Your task to perform on an android device: Do I have any events today? Image 0: 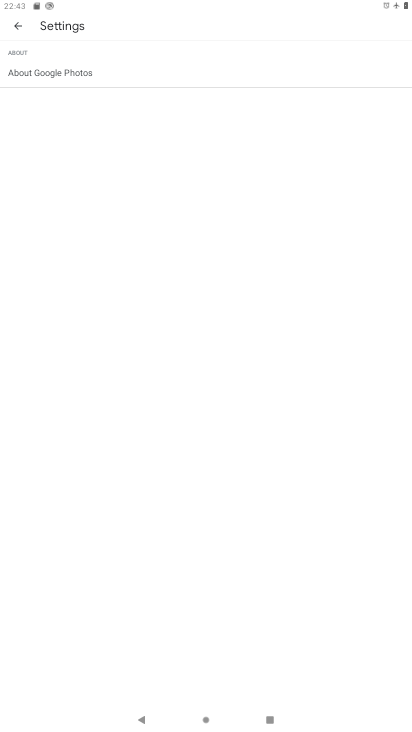
Step 0: press home button
Your task to perform on an android device: Do I have any events today? Image 1: 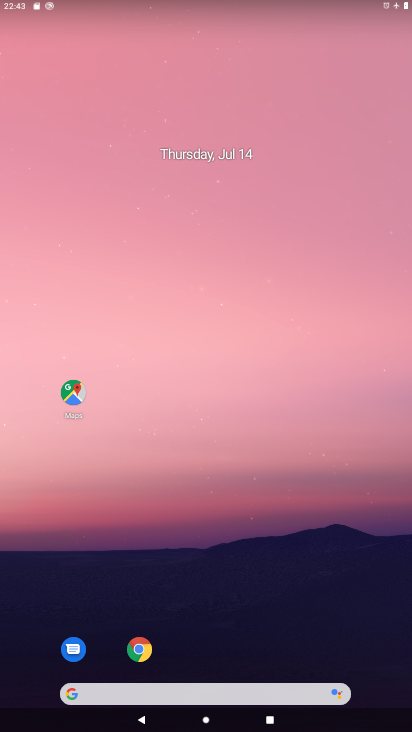
Step 1: drag from (190, 723) to (279, 63)
Your task to perform on an android device: Do I have any events today? Image 2: 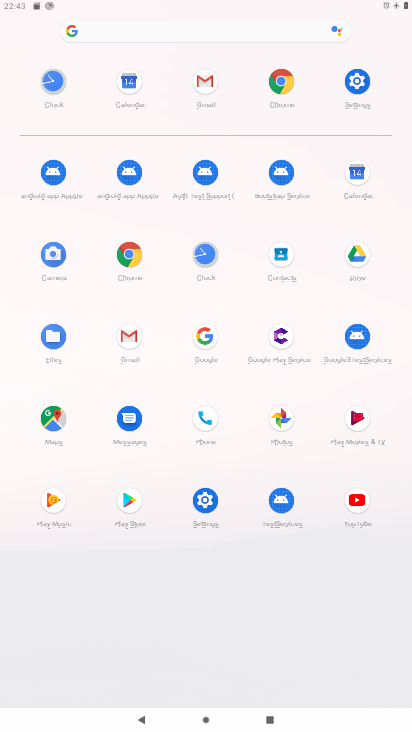
Step 2: click (359, 173)
Your task to perform on an android device: Do I have any events today? Image 3: 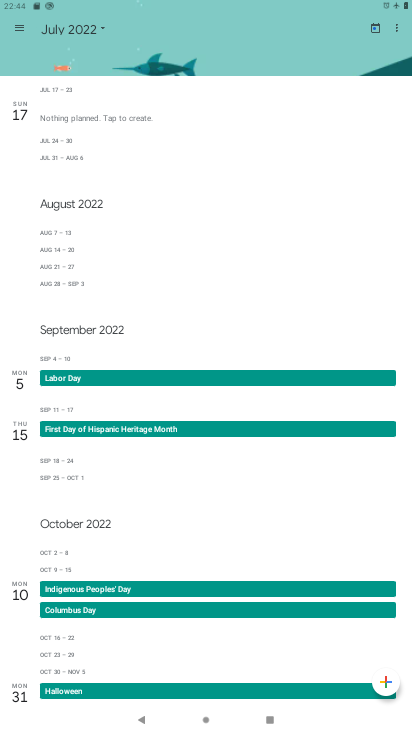
Step 3: task complete